Your task to perform on an android device: Search for Italian restaurants on Maps Image 0: 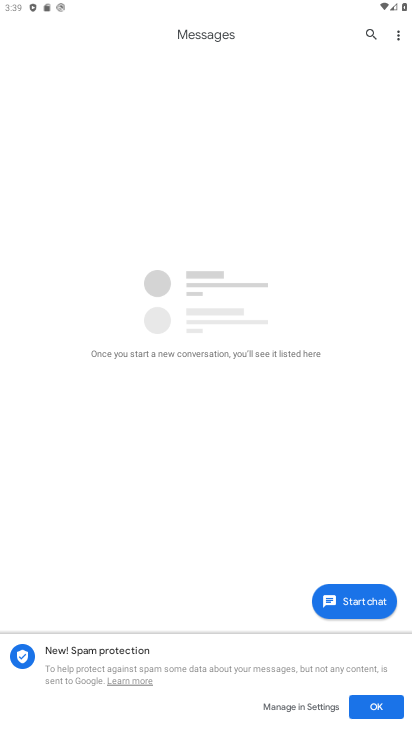
Step 0: press home button
Your task to perform on an android device: Search for Italian restaurants on Maps Image 1: 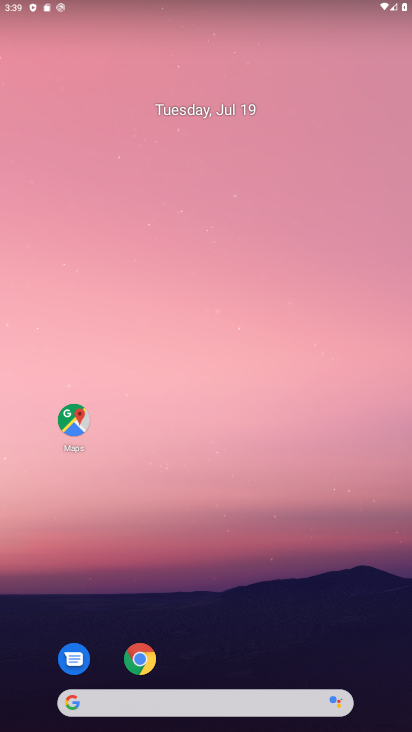
Step 1: drag from (324, 588) to (238, 122)
Your task to perform on an android device: Search for Italian restaurants on Maps Image 2: 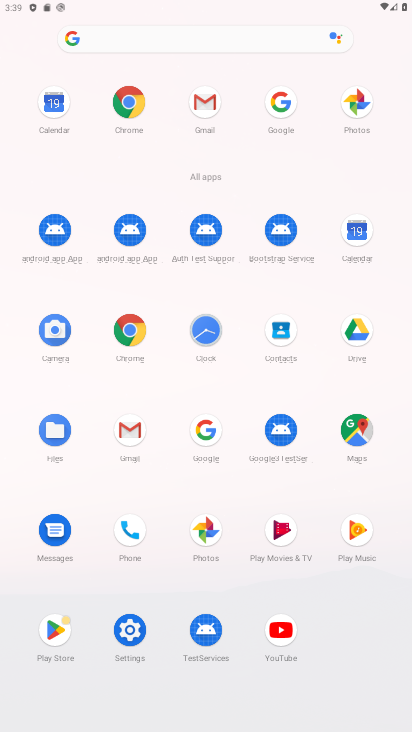
Step 2: click (338, 419)
Your task to perform on an android device: Search for Italian restaurants on Maps Image 3: 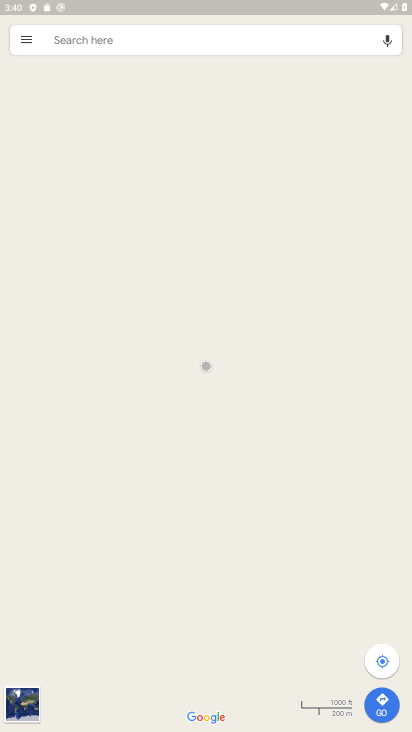
Step 3: click (63, 32)
Your task to perform on an android device: Search for Italian restaurants on Maps Image 4: 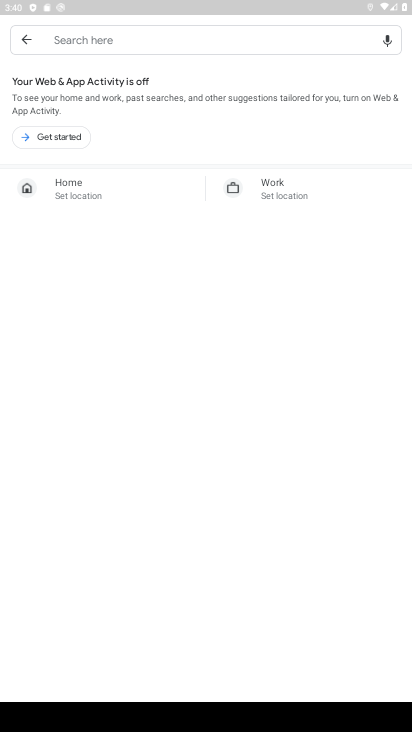
Step 4: type "Italian restaurants"
Your task to perform on an android device: Search for Italian restaurants on Maps Image 5: 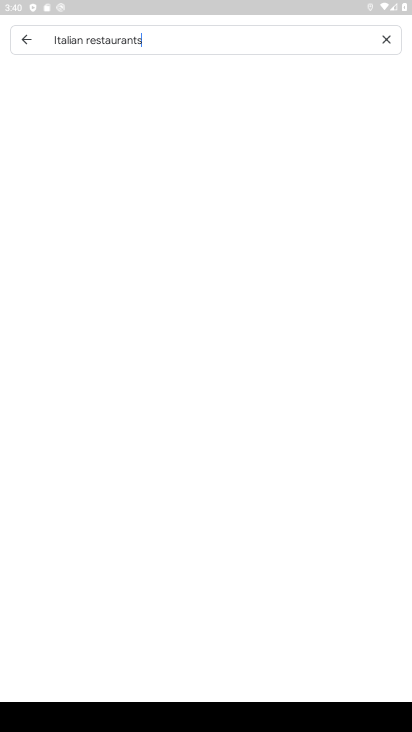
Step 5: press enter
Your task to perform on an android device: Search for Italian restaurants on Maps Image 6: 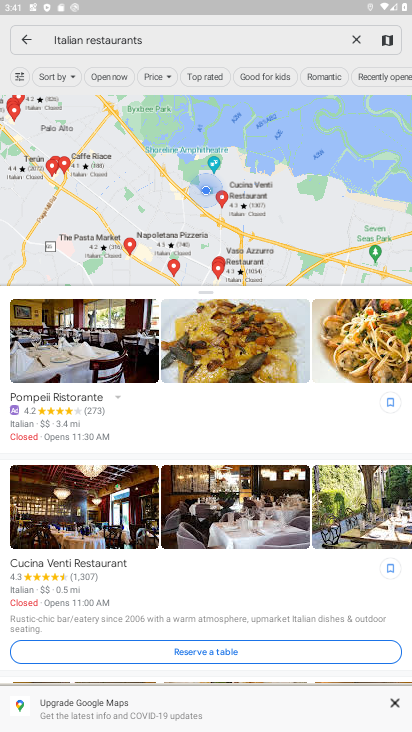
Step 6: task complete